Your task to perform on an android device: Open the stopwatch Image 0: 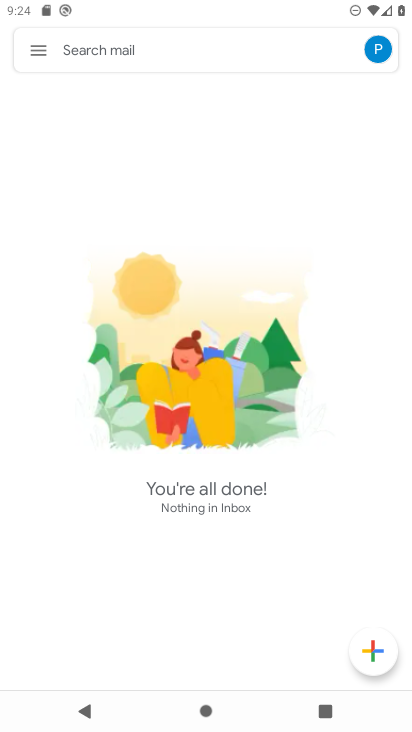
Step 0: press home button
Your task to perform on an android device: Open the stopwatch Image 1: 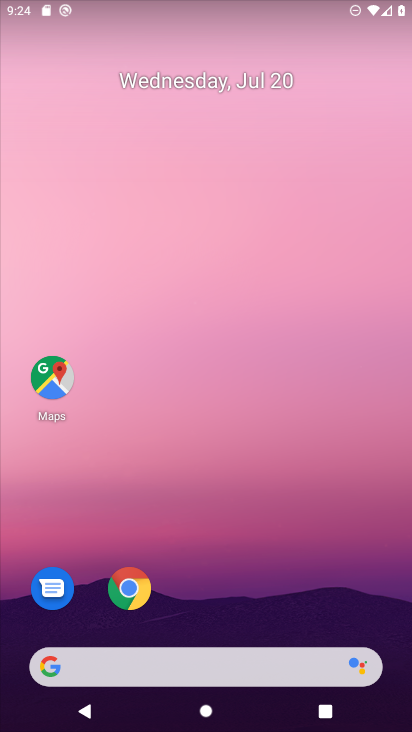
Step 1: drag from (230, 625) to (260, 115)
Your task to perform on an android device: Open the stopwatch Image 2: 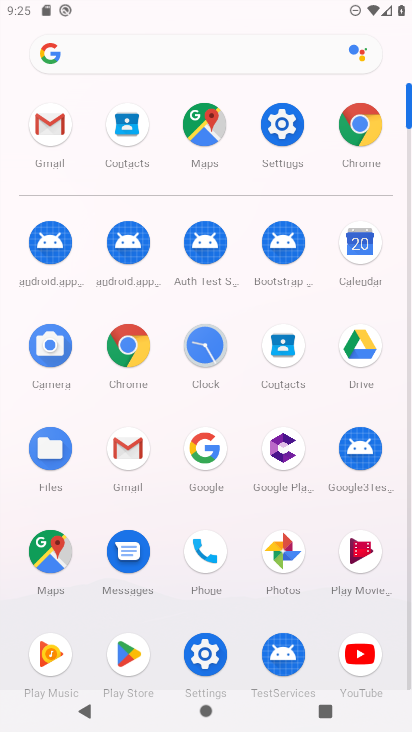
Step 2: click (215, 343)
Your task to perform on an android device: Open the stopwatch Image 3: 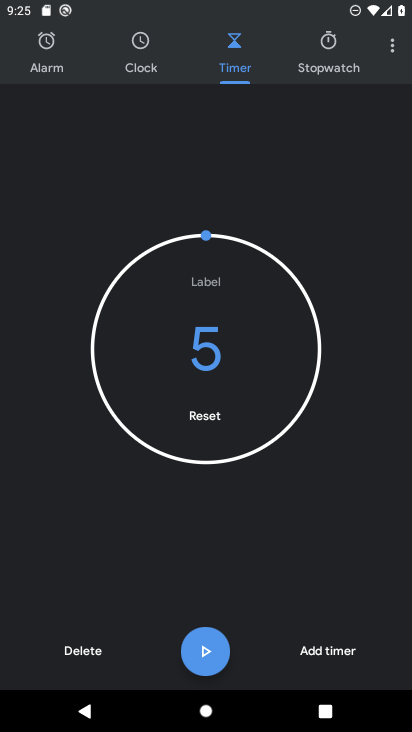
Step 3: click (348, 39)
Your task to perform on an android device: Open the stopwatch Image 4: 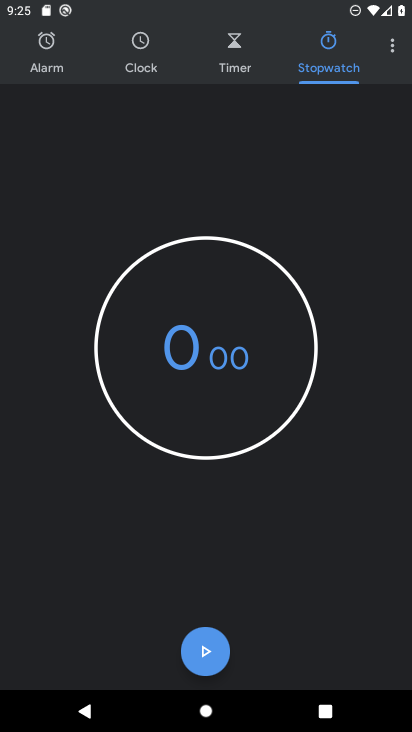
Step 4: task complete